Your task to perform on an android device: Open Amazon Image 0: 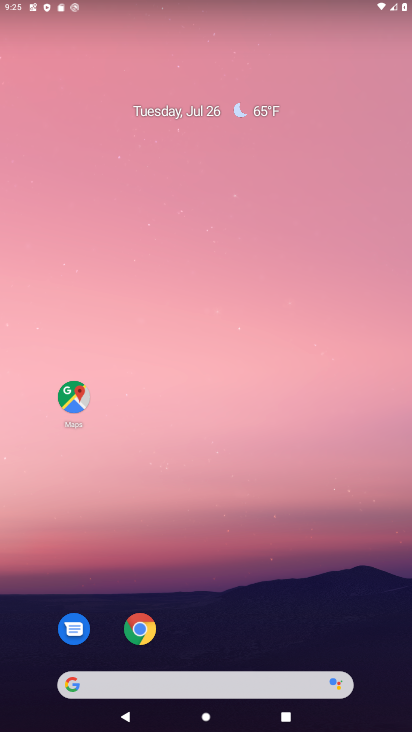
Step 0: click (136, 629)
Your task to perform on an android device: Open Amazon Image 1: 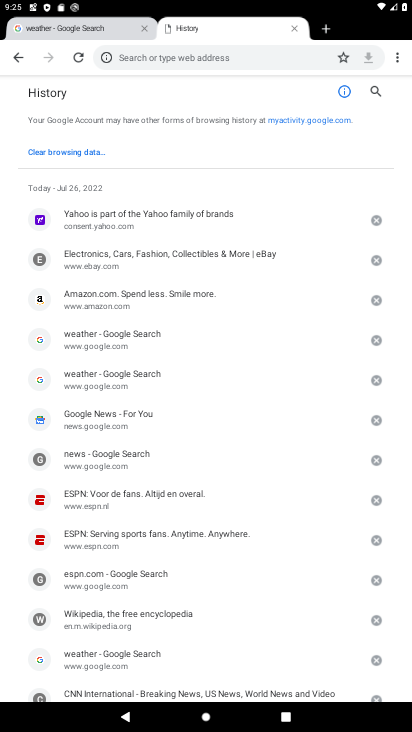
Step 1: click (262, 67)
Your task to perform on an android device: Open Amazon Image 2: 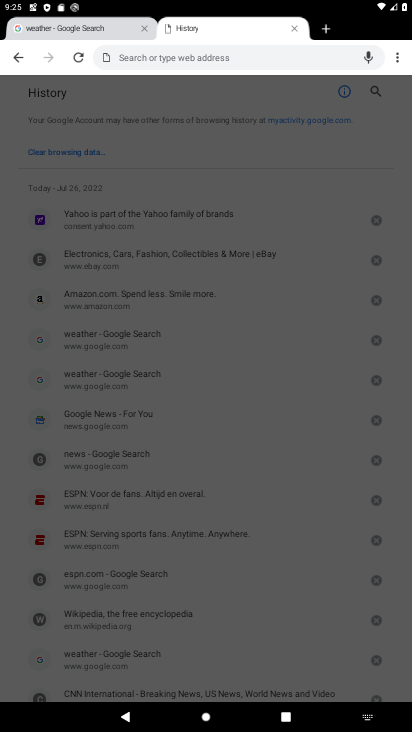
Step 2: type "amazon"
Your task to perform on an android device: Open Amazon Image 3: 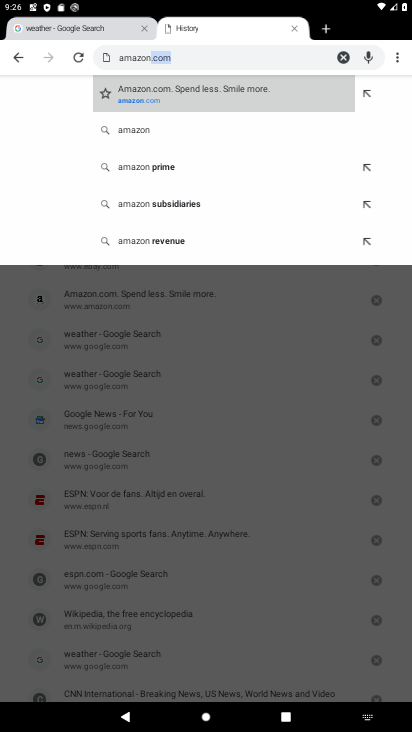
Step 3: click (173, 103)
Your task to perform on an android device: Open Amazon Image 4: 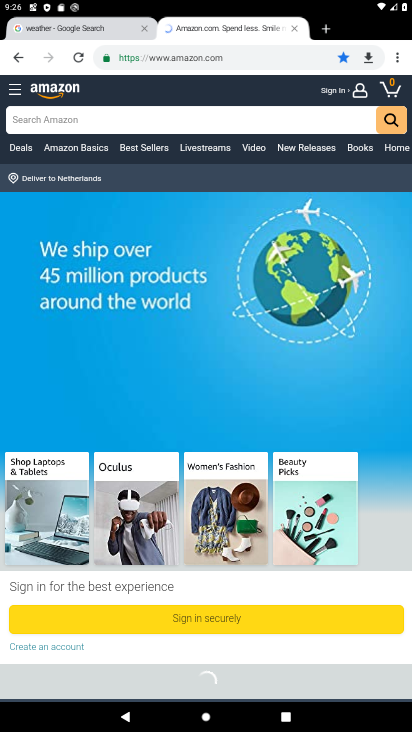
Step 4: task complete